Your task to perform on an android device: move a message to another label in the gmail app Image 0: 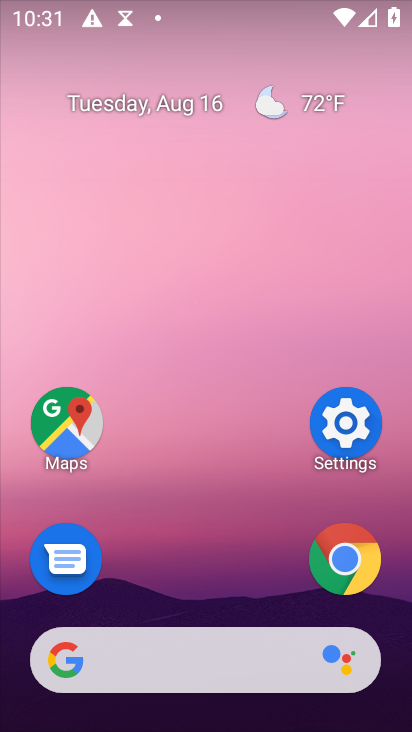
Step 0: drag from (198, 617) to (369, 116)
Your task to perform on an android device: move a message to another label in the gmail app Image 1: 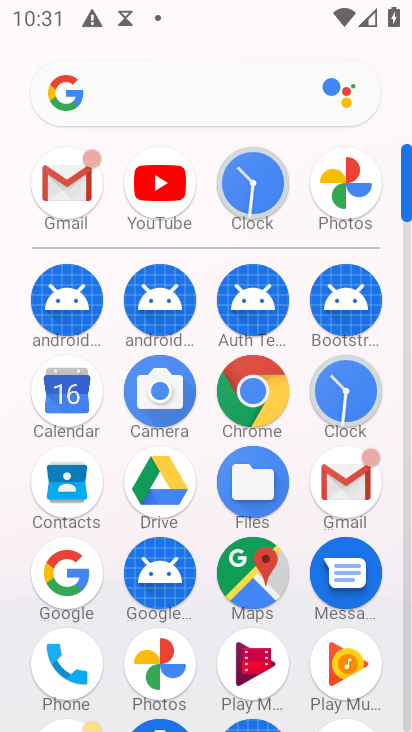
Step 1: click (61, 184)
Your task to perform on an android device: move a message to another label in the gmail app Image 2: 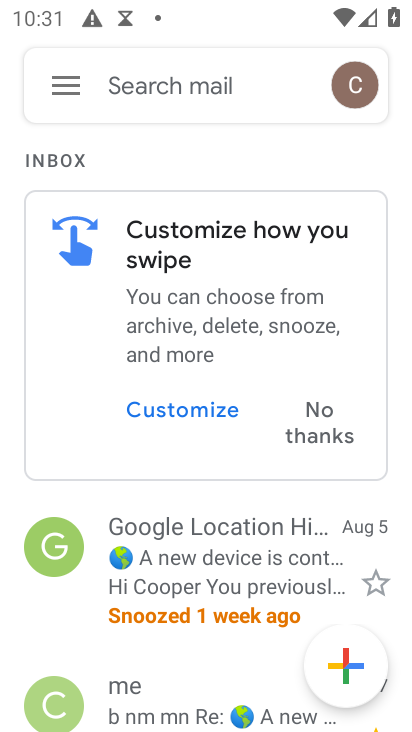
Step 2: drag from (223, 514) to (344, 128)
Your task to perform on an android device: move a message to another label in the gmail app Image 3: 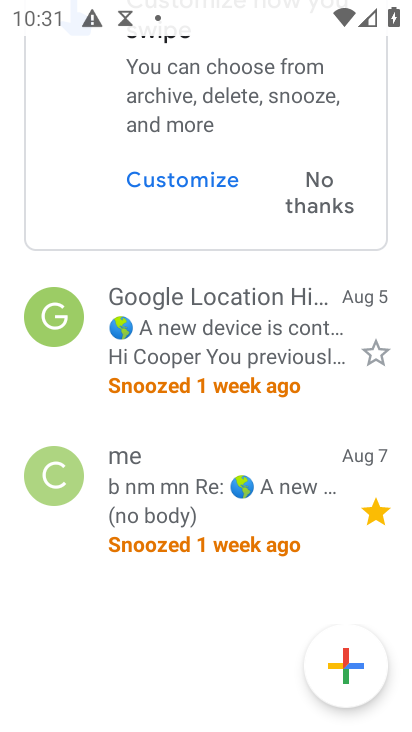
Step 3: click (171, 490)
Your task to perform on an android device: move a message to another label in the gmail app Image 4: 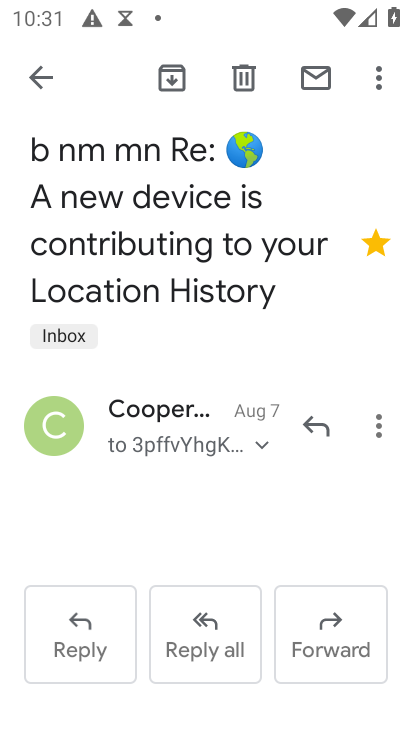
Step 4: click (78, 336)
Your task to perform on an android device: move a message to another label in the gmail app Image 5: 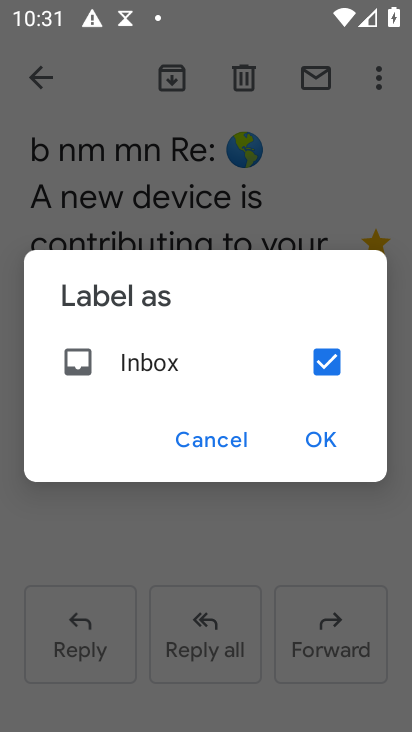
Step 5: task complete